Your task to perform on an android device: Go to Wikipedia Image 0: 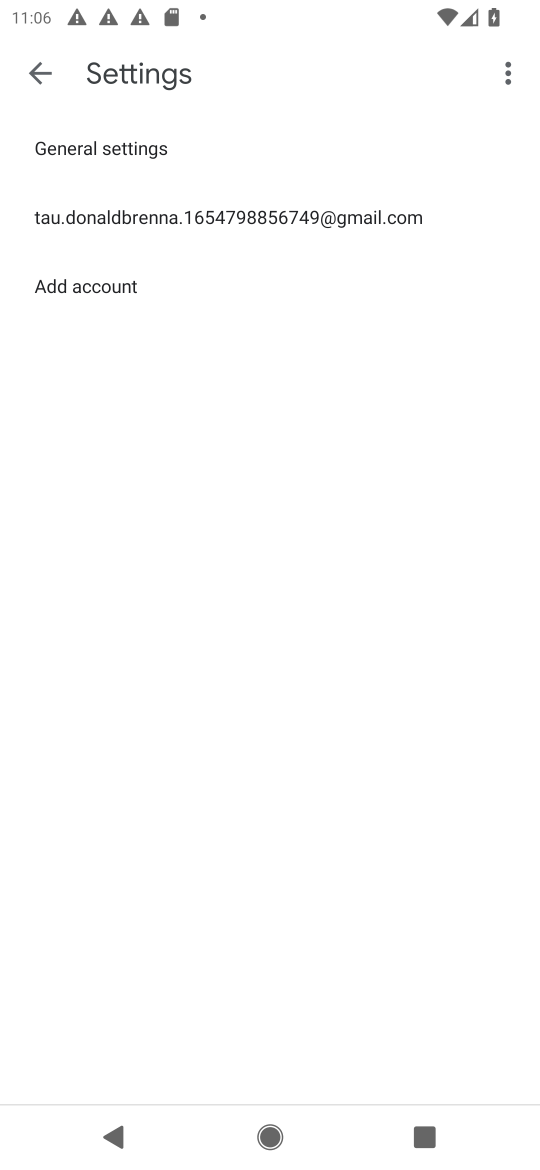
Step 0: press home button
Your task to perform on an android device: Go to Wikipedia Image 1: 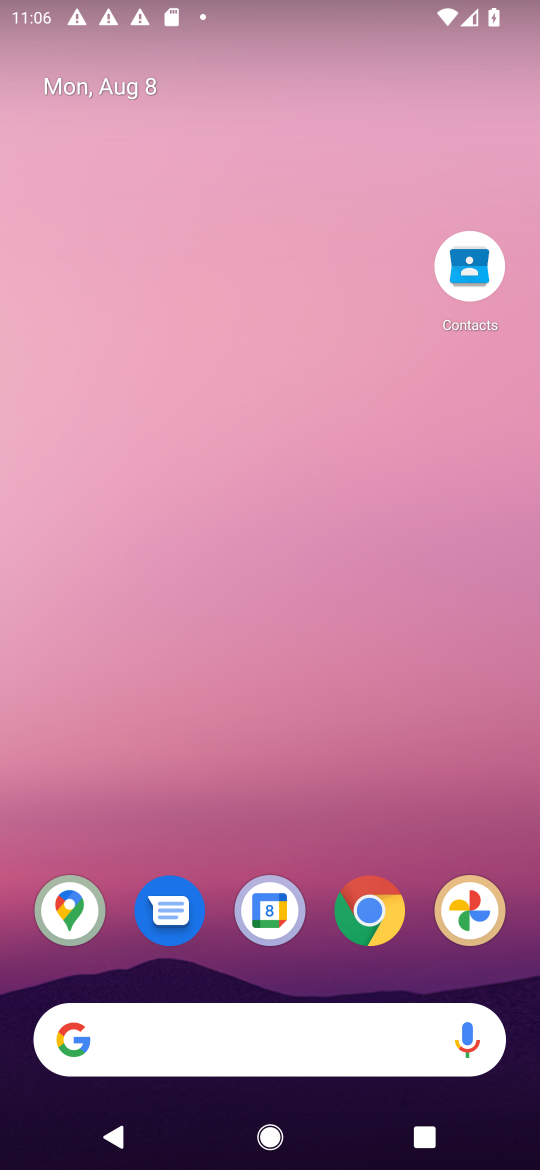
Step 1: drag from (273, 968) to (124, 329)
Your task to perform on an android device: Go to Wikipedia Image 2: 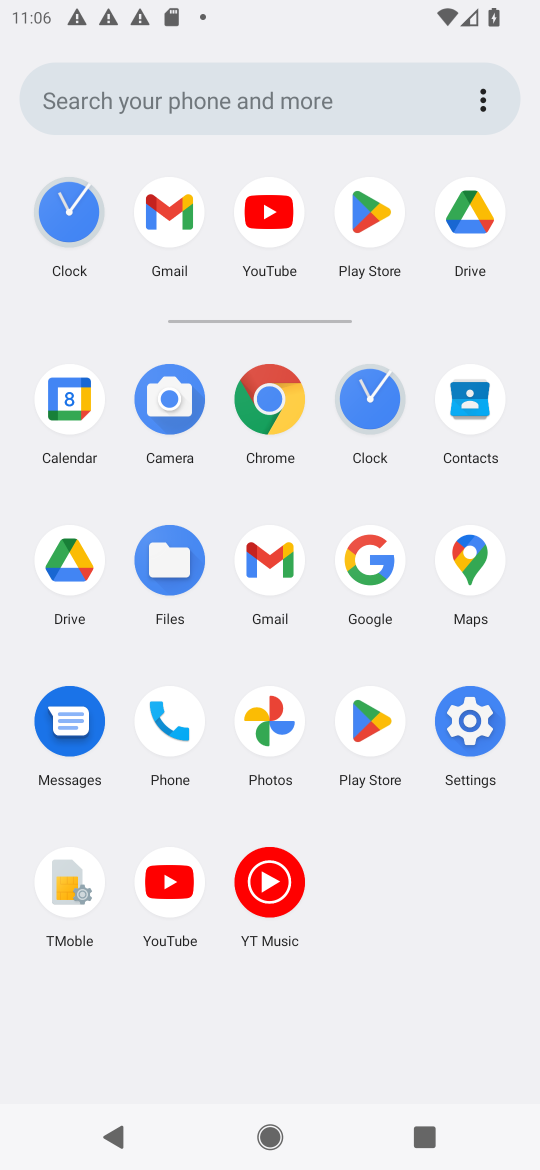
Step 2: click (283, 399)
Your task to perform on an android device: Go to Wikipedia Image 3: 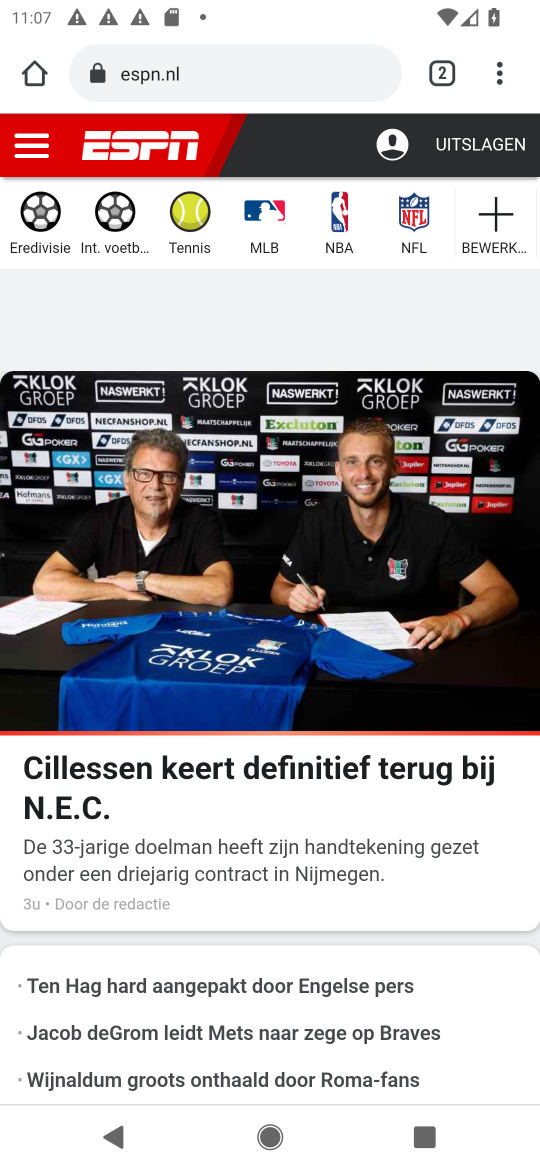
Step 3: click (452, 62)
Your task to perform on an android device: Go to Wikipedia Image 4: 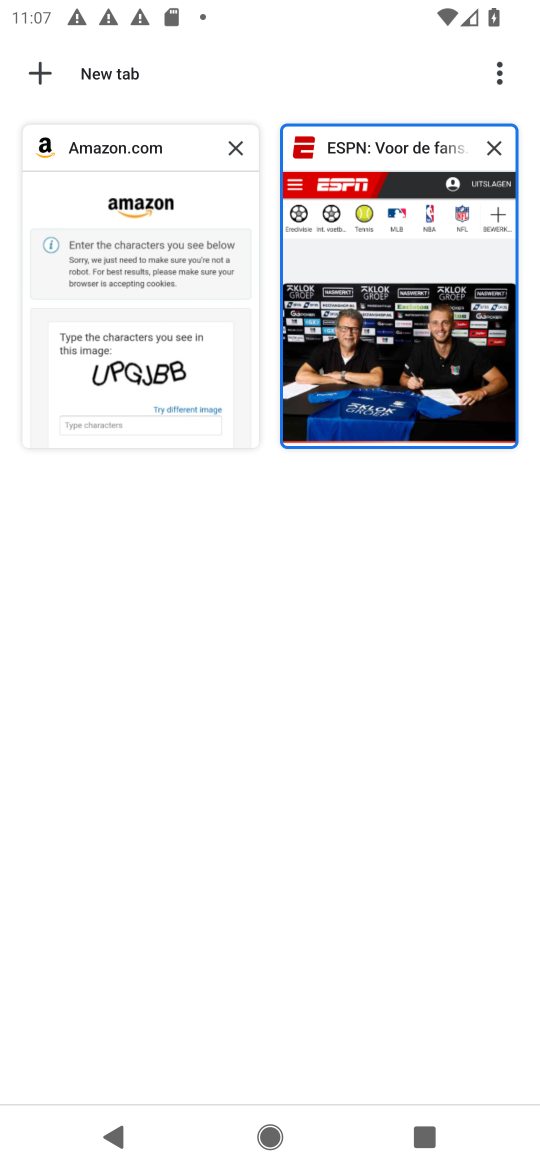
Step 4: click (31, 63)
Your task to perform on an android device: Go to Wikipedia Image 5: 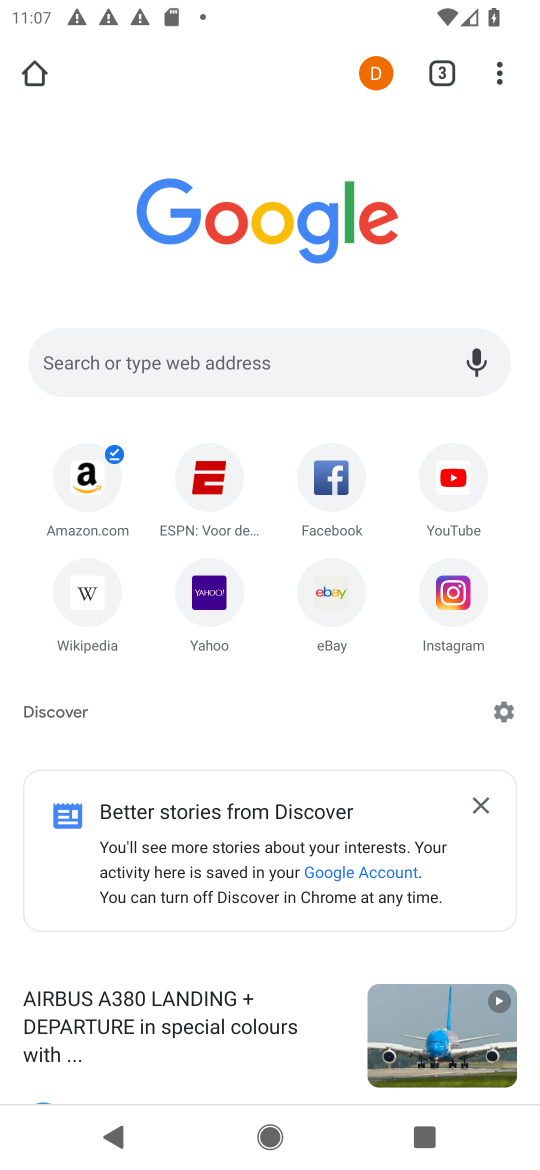
Step 5: click (87, 603)
Your task to perform on an android device: Go to Wikipedia Image 6: 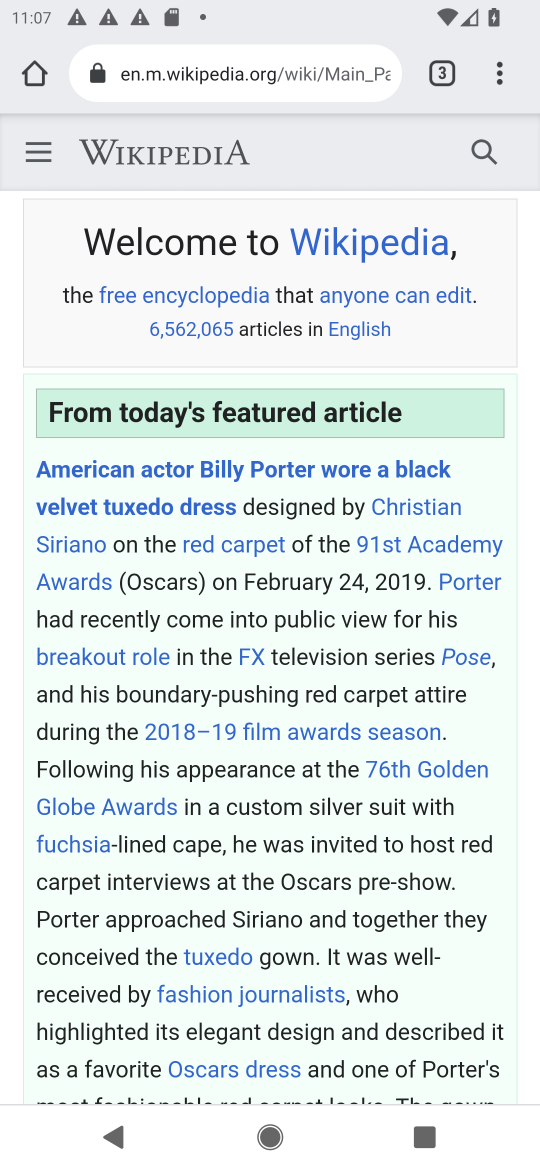
Step 6: task complete